Your task to perform on an android device: toggle javascript in the chrome app Image 0: 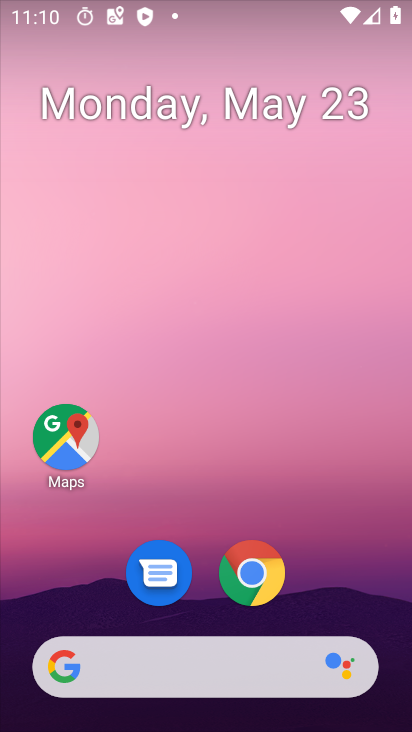
Step 0: click (253, 572)
Your task to perform on an android device: toggle javascript in the chrome app Image 1: 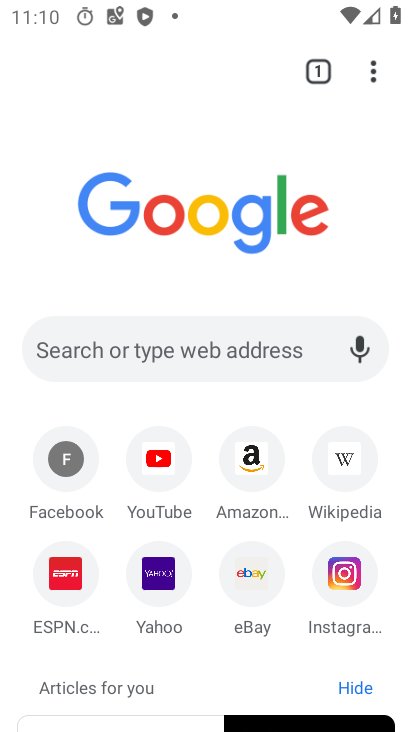
Step 1: click (374, 70)
Your task to perform on an android device: toggle javascript in the chrome app Image 2: 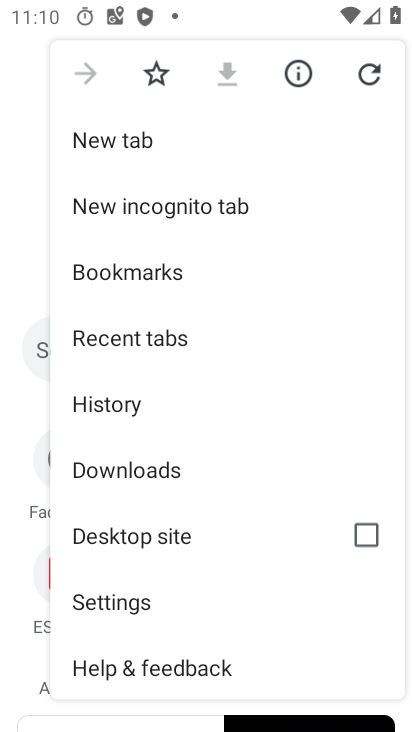
Step 2: click (129, 606)
Your task to perform on an android device: toggle javascript in the chrome app Image 3: 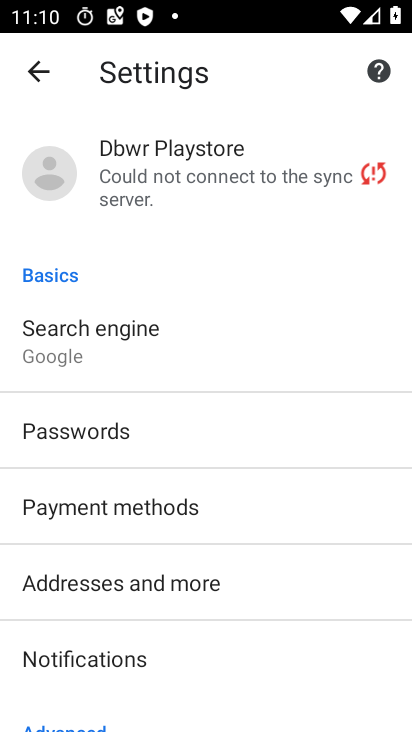
Step 3: drag from (69, 557) to (110, 447)
Your task to perform on an android device: toggle javascript in the chrome app Image 4: 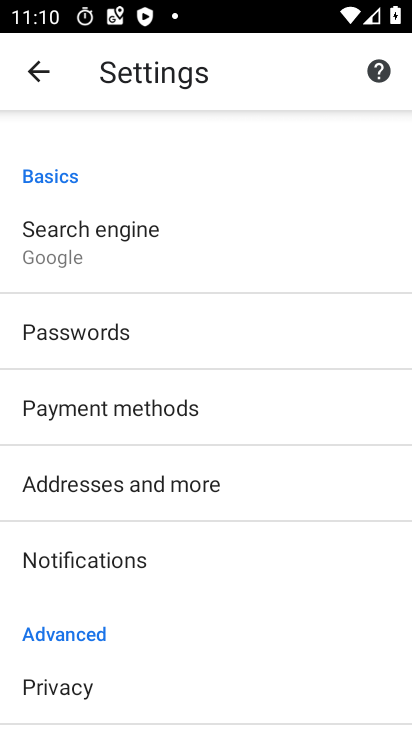
Step 4: drag from (91, 561) to (137, 472)
Your task to perform on an android device: toggle javascript in the chrome app Image 5: 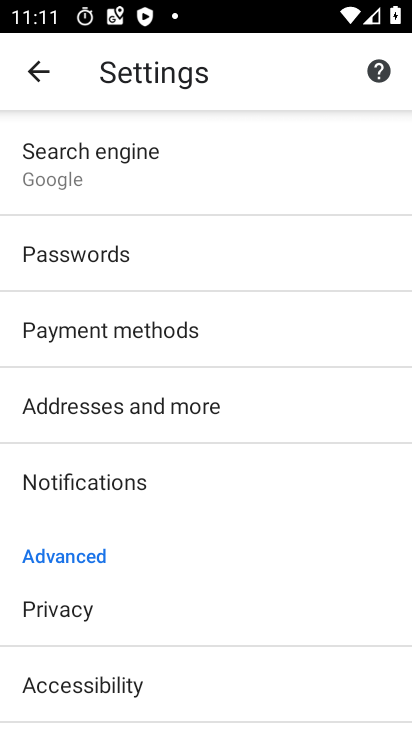
Step 5: drag from (109, 608) to (135, 524)
Your task to perform on an android device: toggle javascript in the chrome app Image 6: 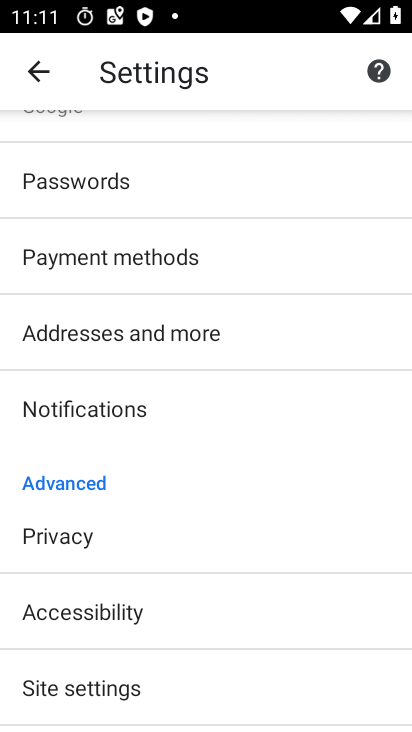
Step 6: drag from (81, 617) to (112, 533)
Your task to perform on an android device: toggle javascript in the chrome app Image 7: 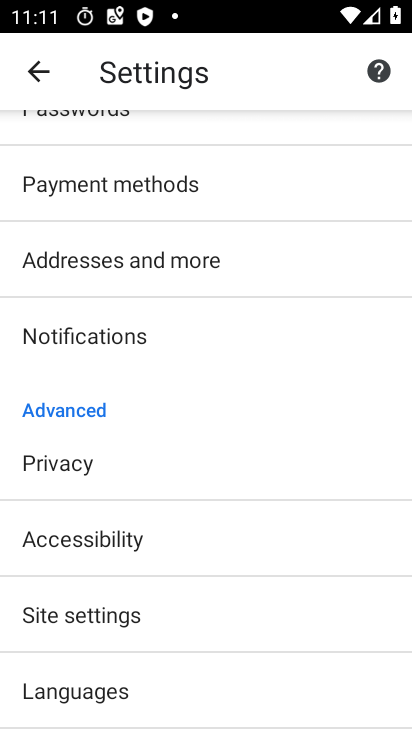
Step 7: drag from (63, 641) to (105, 521)
Your task to perform on an android device: toggle javascript in the chrome app Image 8: 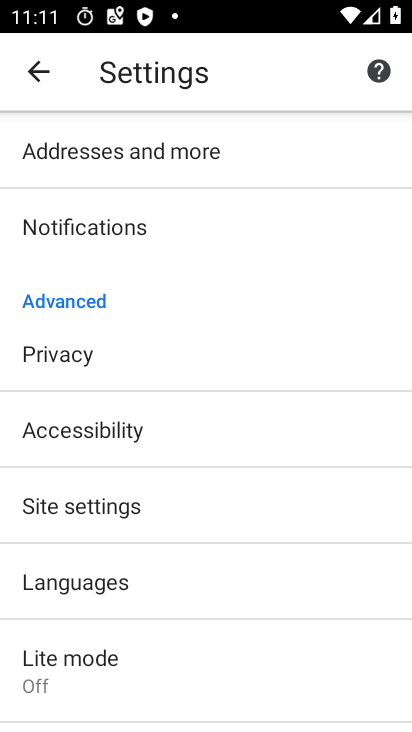
Step 8: click (105, 514)
Your task to perform on an android device: toggle javascript in the chrome app Image 9: 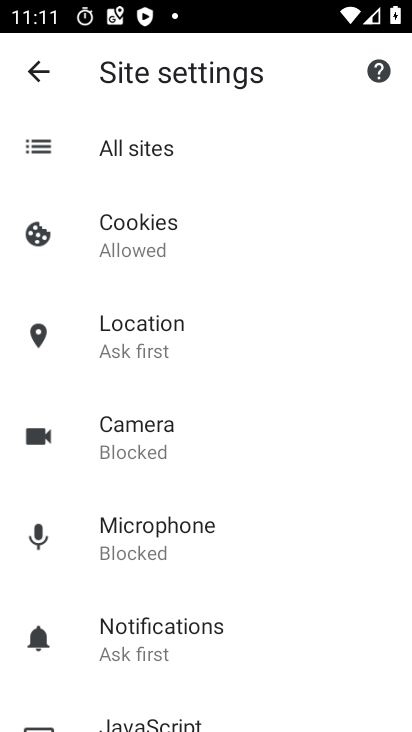
Step 9: drag from (125, 591) to (165, 485)
Your task to perform on an android device: toggle javascript in the chrome app Image 10: 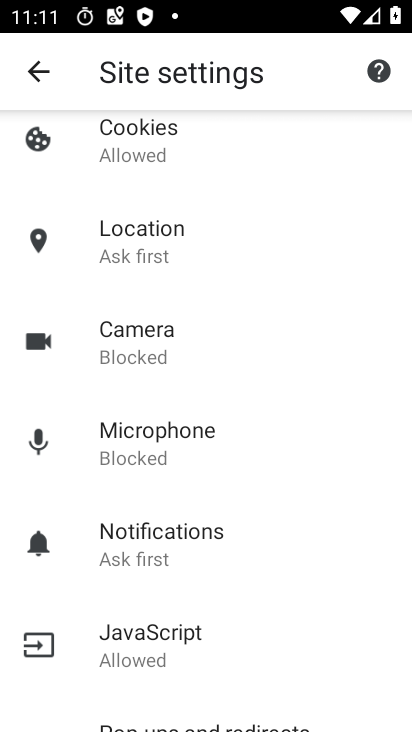
Step 10: click (154, 663)
Your task to perform on an android device: toggle javascript in the chrome app Image 11: 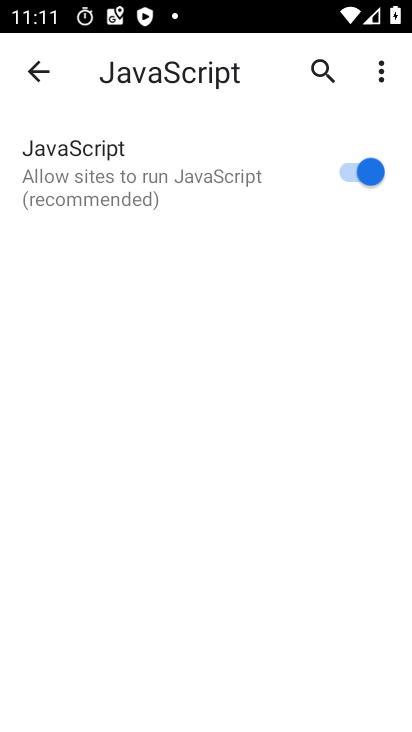
Step 11: click (373, 174)
Your task to perform on an android device: toggle javascript in the chrome app Image 12: 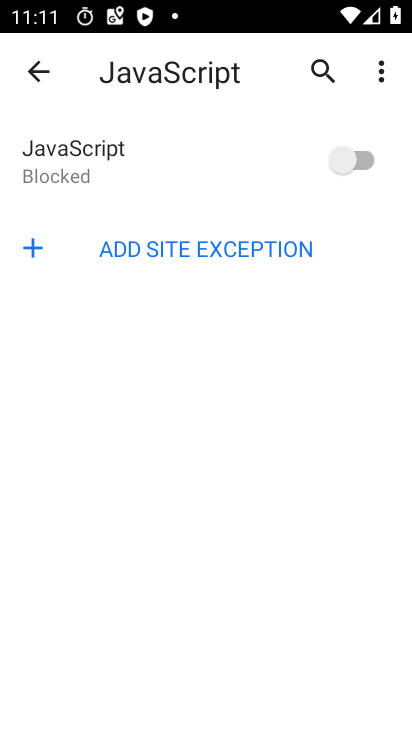
Step 12: task complete